Your task to perform on an android device: Open Maps and search for coffee Image 0: 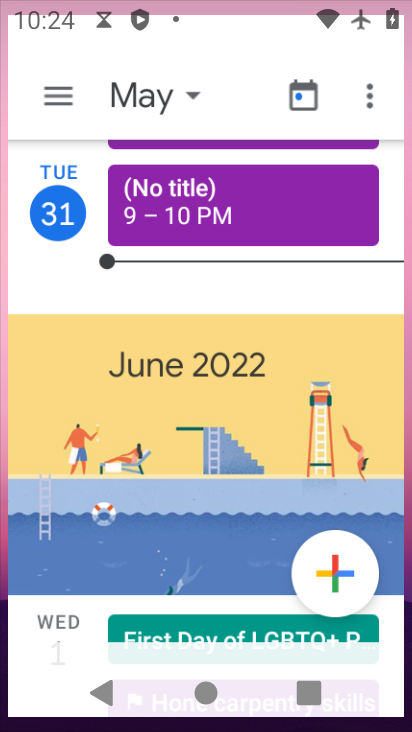
Step 0: drag from (354, 550) to (231, 32)
Your task to perform on an android device: Open Maps and search for coffee Image 1: 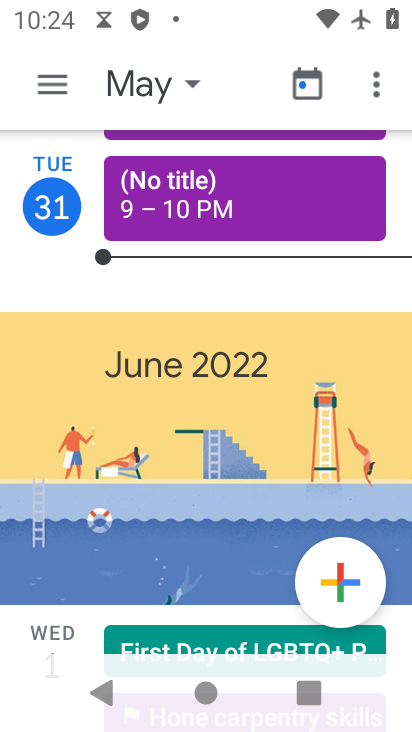
Step 1: press back button
Your task to perform on an android device: Open Maps and search for coffee Image 2: 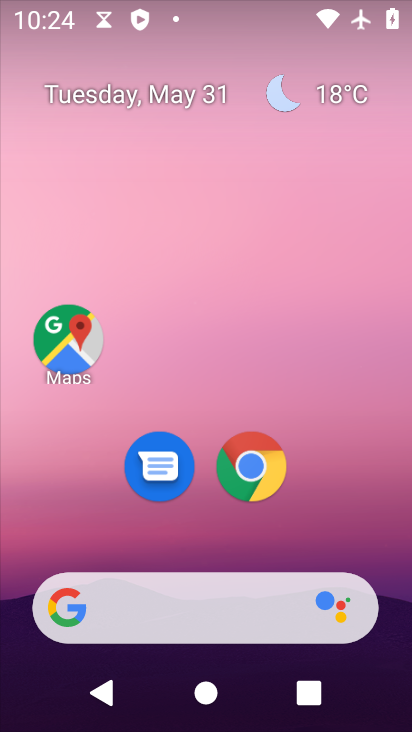
Step 2: drag from (336, 447) to (224, 36)
Your task to perform on an android device: Open Maps and search for coffee Image 3: 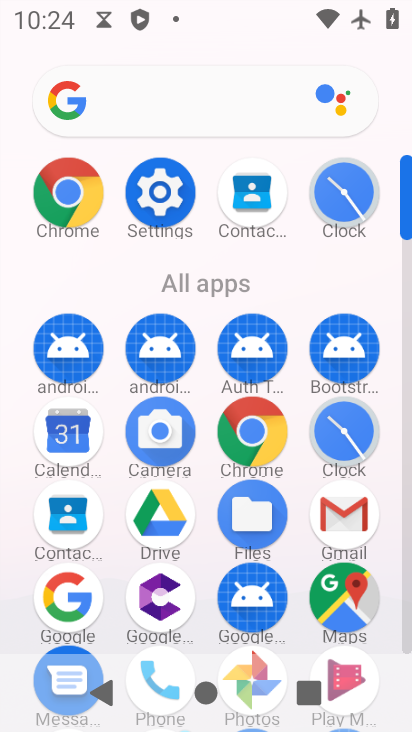
Step 3: drag from (10, 412) to (8, 173)
Your task to perform on an android device: Open Maps and search for coffee Image 4: 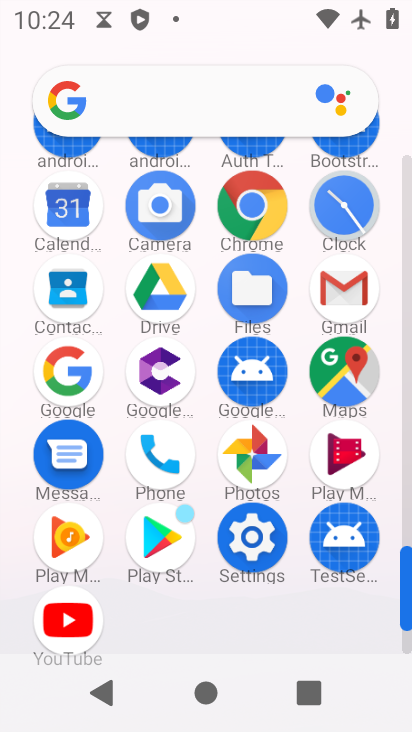
Step 4: click (341, 366)
Your task to perform on an android device: Open Maps and search for coffee Image 5: 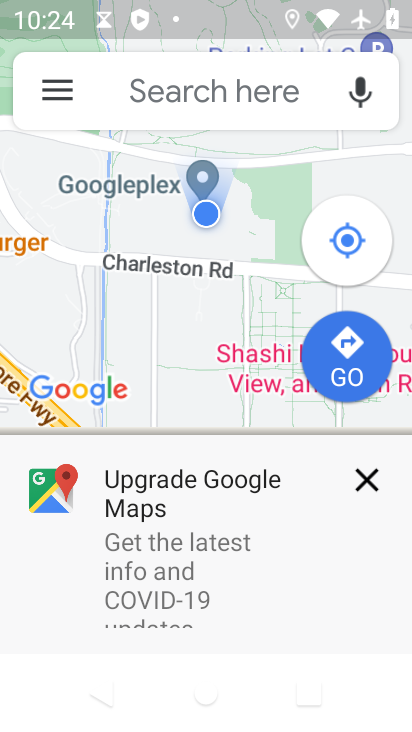
Step 5: click (117, 98)
Your task to perform on an android device: Open Maps and search for coffee Image 6: 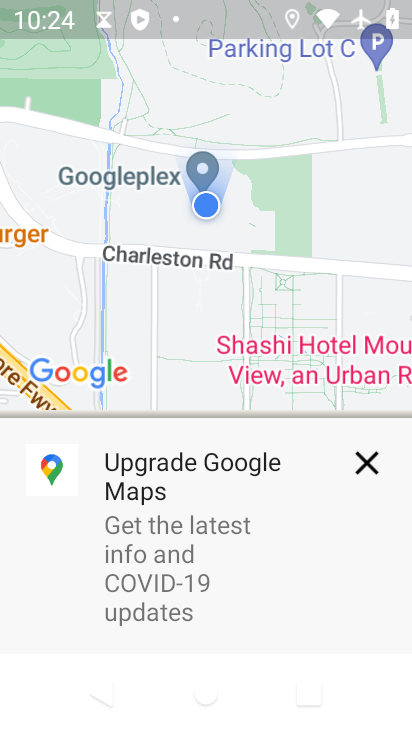
Step 6: click (364, 452)
Your task to perform on an android device: Open Maps and search for coffee Image 7: 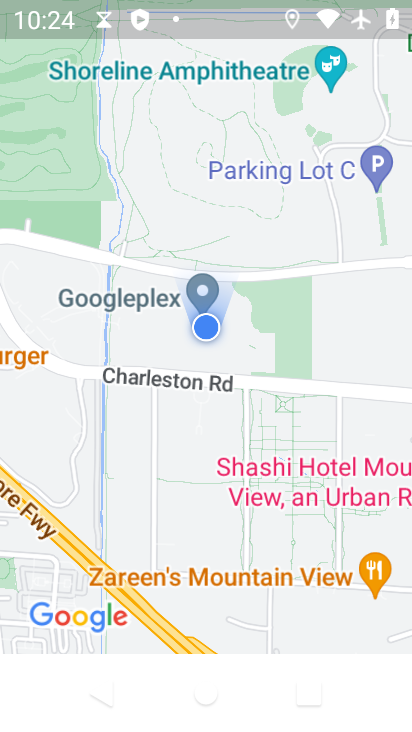
Step 7: click (172, 140)
Your task to perform on an android device: Open Maps and search for coffee Image 8: 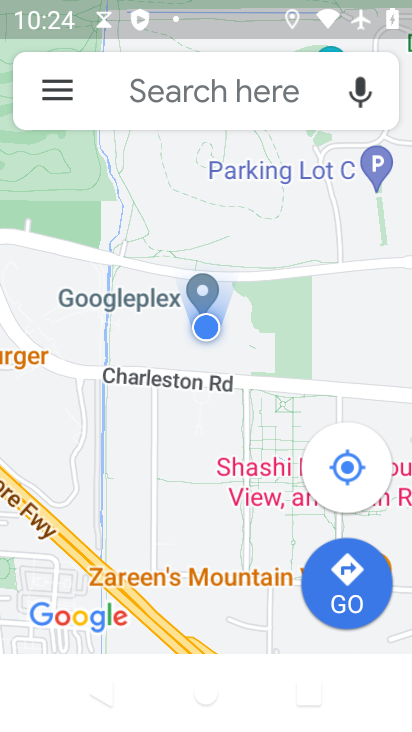
Step 8: click (115, 87)
Your task to perform on an android device: Open Maps and search for coffee Image 9: 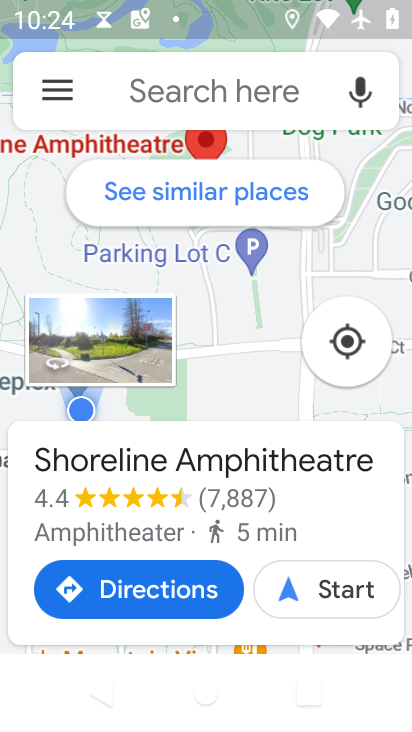
Step 9: click (299, 85)
Your task to perform on an android device: Open Maps and search for coffee Image 10: 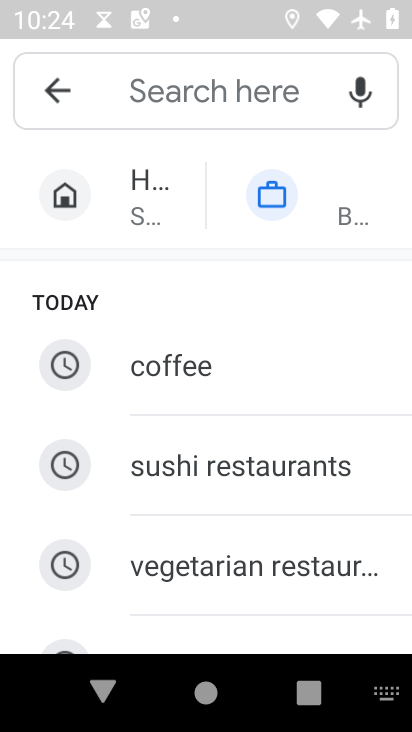
Step 10: click (214, 379)
Your task to perform on an android device: Open Maps and search for coffee Image 11: 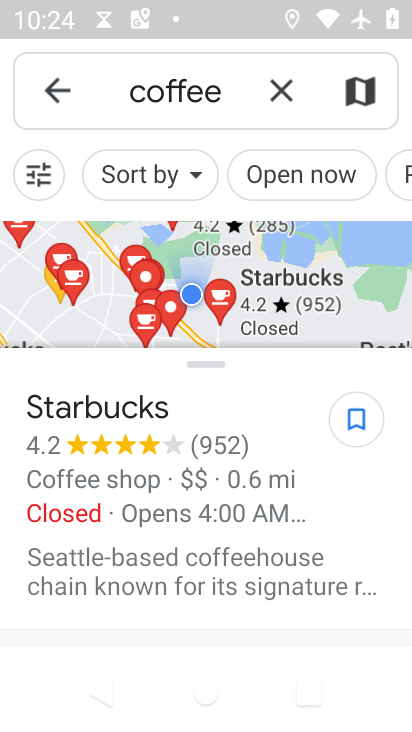
Step 11: task complete